Your task to perform on an android device: Do I have any events tomorrow? Image 0: 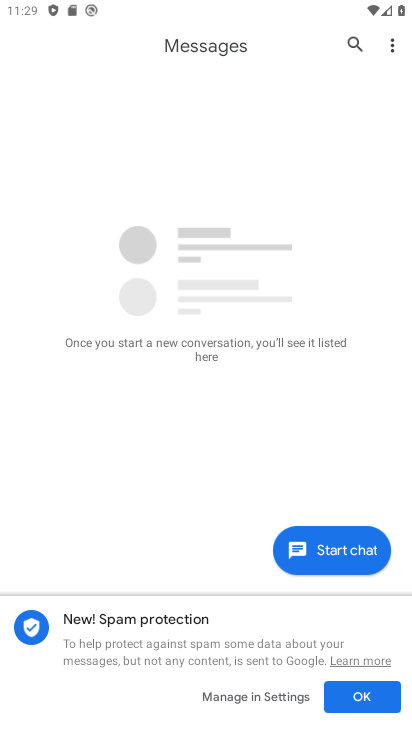
Step 0: press home button
Your task to perform on an android device: Do I have any events tomorrow? Image 1: 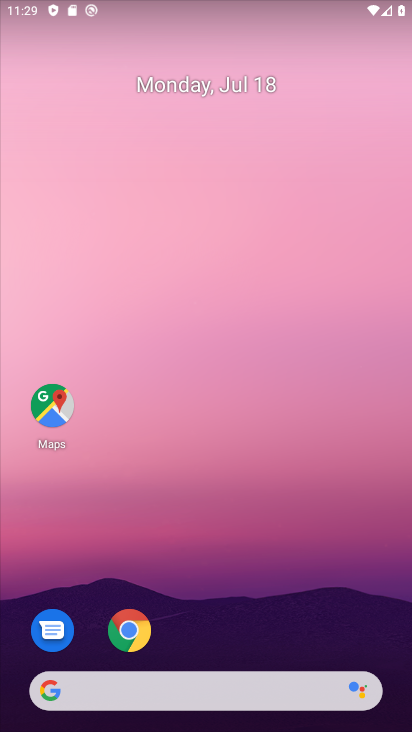
Step 1: drag from (181, 630) to (169, 356)
Your task to perform on an android device: Do I have any events tomorrow? Image 2: 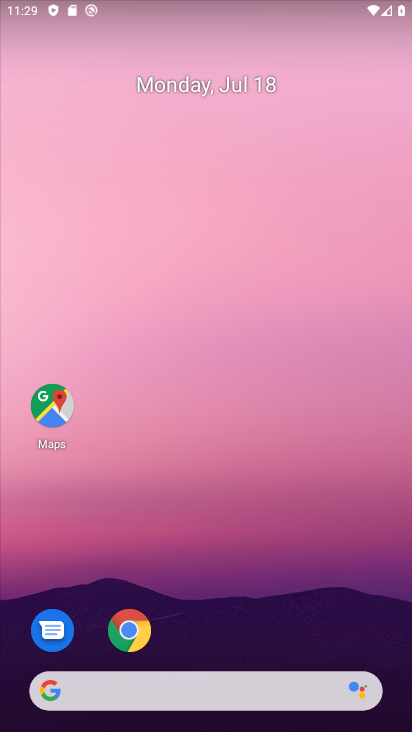
Step 2: click (193, 75)
Your task to perform on an android device: Do I have any events tomorrow? Image 3: 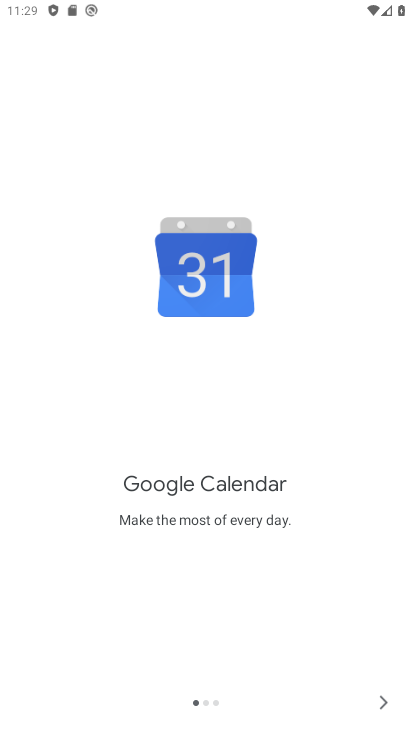
Step 3: click (391, 701)
Your task to perform on an android device: Do I have any events tomorrow? Image 4: 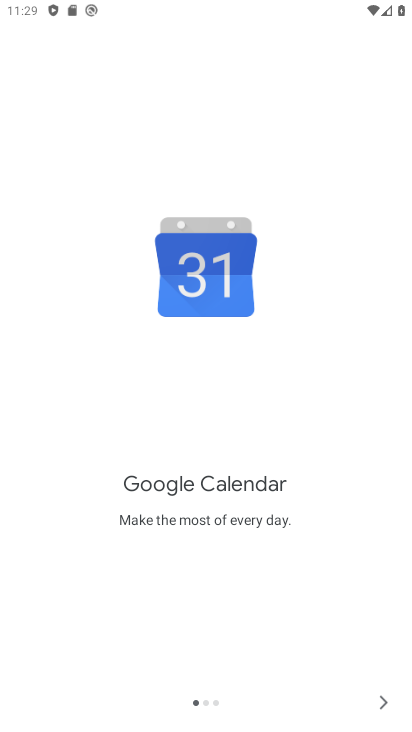
Step 4: click (391, 701)
Your task to perform on an android device: Do I have any events tomorrow? Image 5: 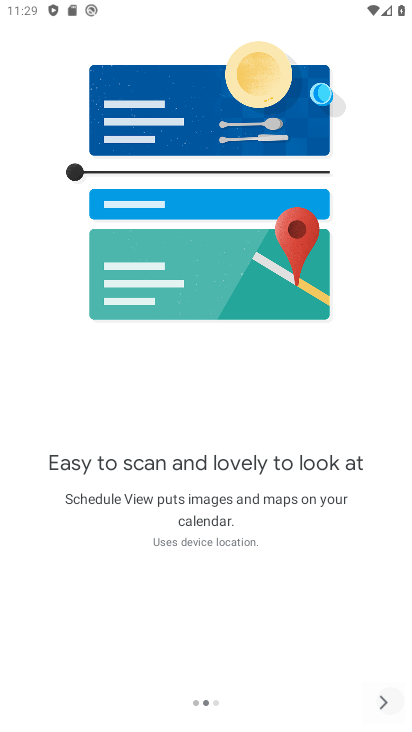
Step 5: click (391, 701)
Your task to perform on an android device: Do I have any events tomorrow? Image 6: 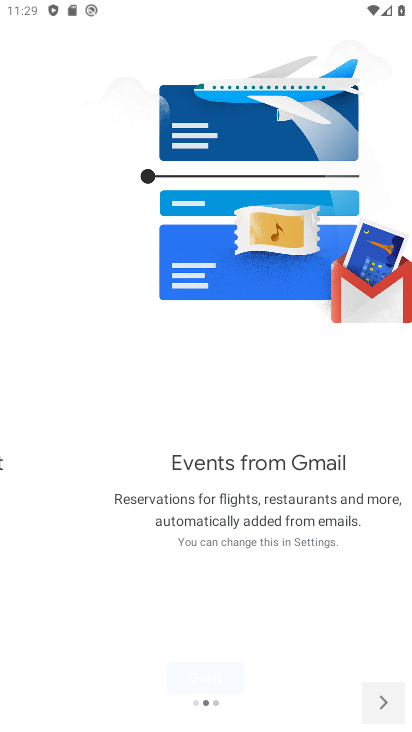
Step 6: click (391, 701)
Your task to perform on an android device: Do I have any events tomorrow? Image 7: 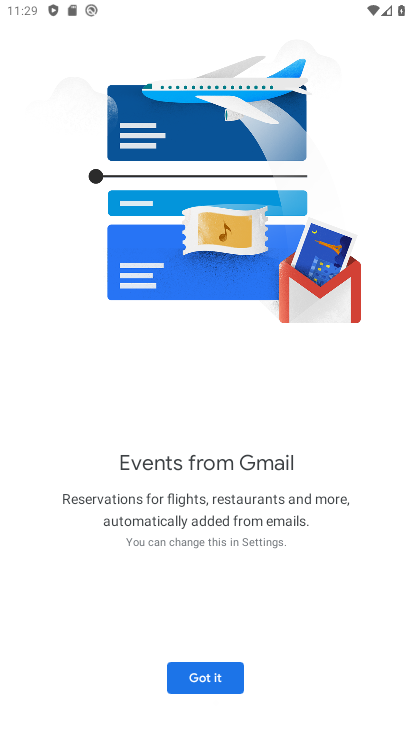
Step 7: click (391, 701)
Your task to perform on an android device: Do I have any events tomorrow? Image 8: 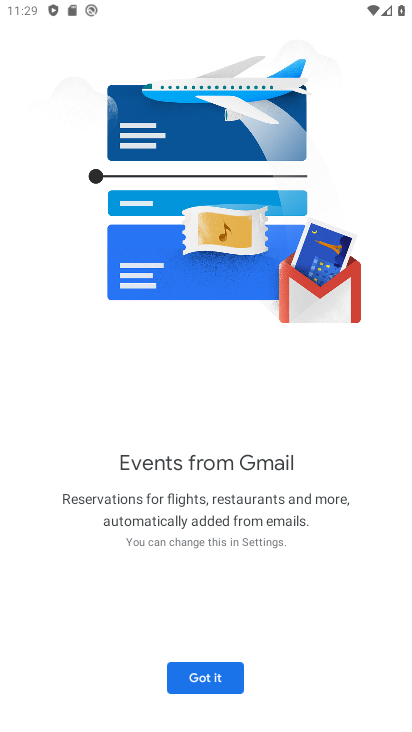
Step 8: click (391, 701)
Your task to perform on an android device: Do I have any events tomorrow? Image 9: 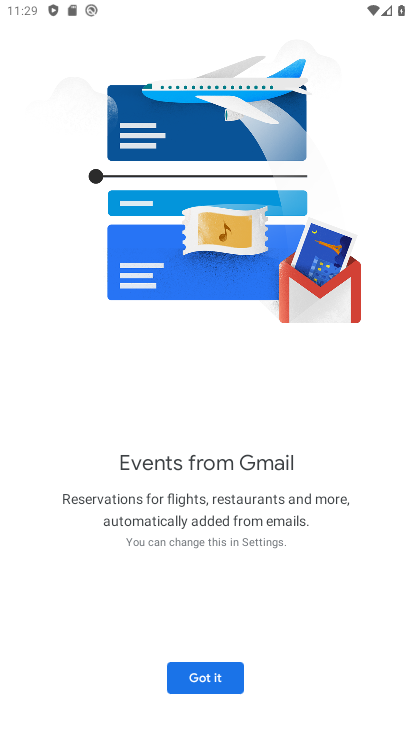
Step 9: click (391, 701)
Your task to perform on an android device: Do I have any events tomorrow? Image 10: 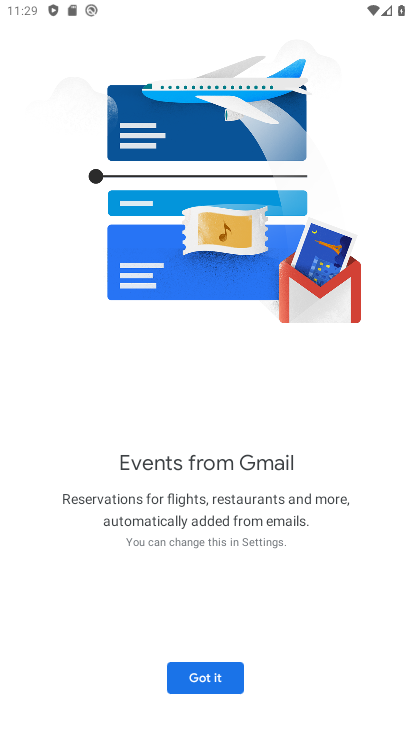
Step 10: click (391, 701)
Your task to perform on an android device: Do I have any events tomorrow? Image 11: 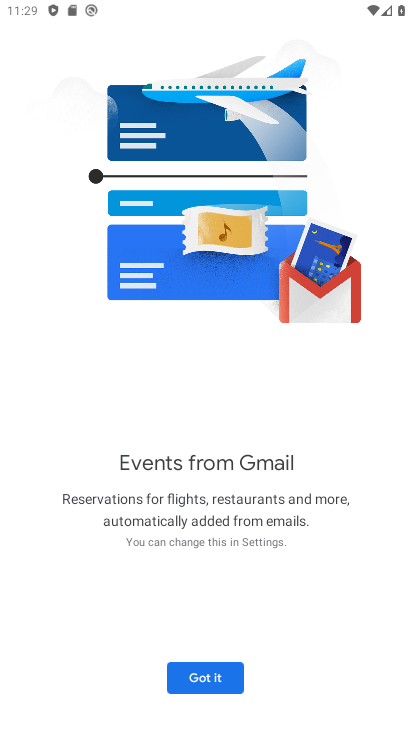
Step 11: click (391, 701)
Your task to perform on an android device: Do I have any events tomorrow? Image 12: 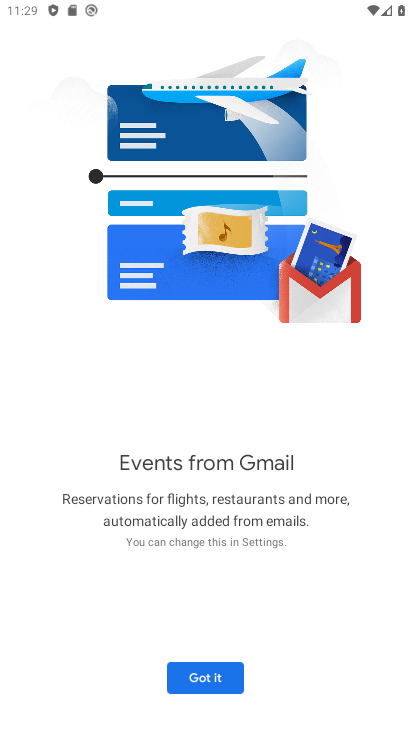
Step 12: click (229, 677)
Your task to perform on an android device: Do I have any events tomorrow? Image 13: 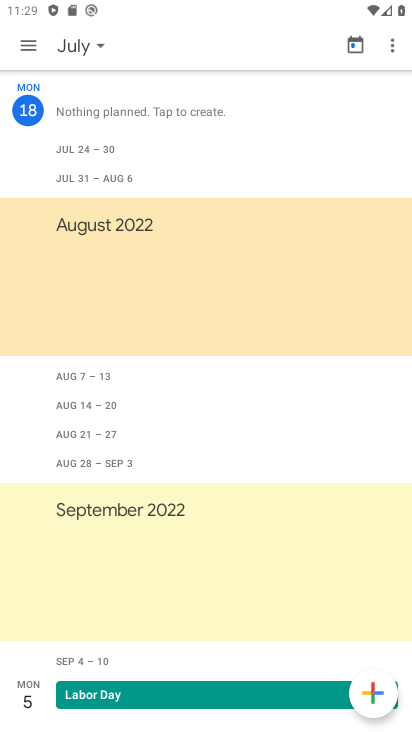
Step 13: click (27, 37)
Your task to perform on an android device: Do I have any events tomorrow? Image 14: 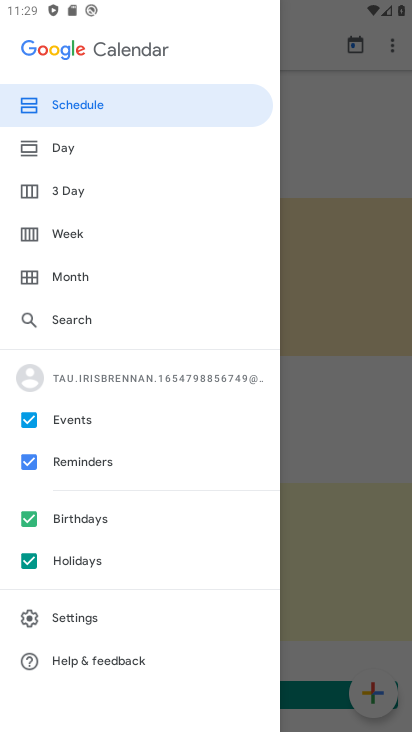
Step 14: click (31, 463)
Your task to perform on an android device: Do I have any events tomorrow? Image 15: 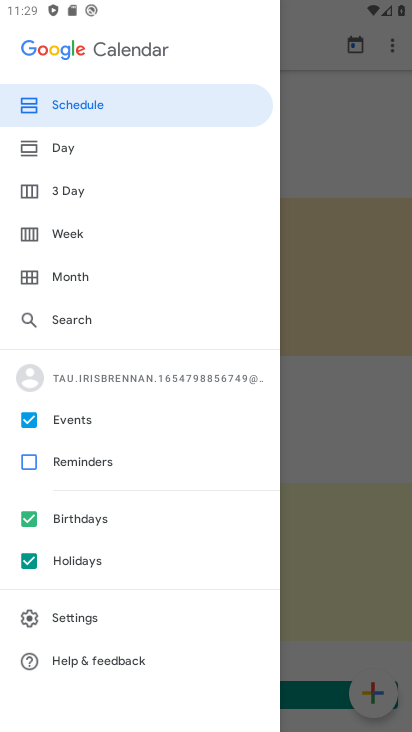
Step 15: click (22, 518)
Your task to perform on an android device: Do I have any events tomorrow? Image 16: 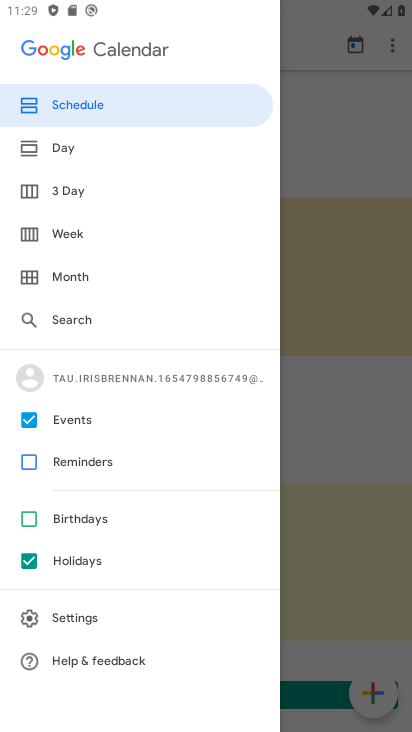
Step 16: click (24, 559)
Your task to perform on an android device: Do I have any events tomorrow? Image 17: 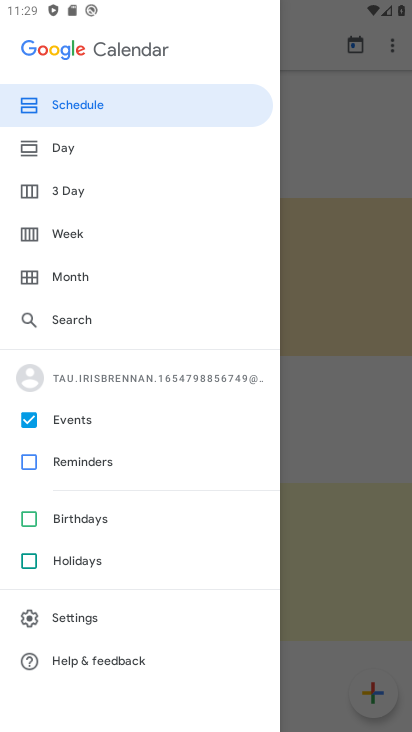
Step 17: click (48, 147)
Your task to perform on an android device: Do I have any events tomorrow? Image 18: 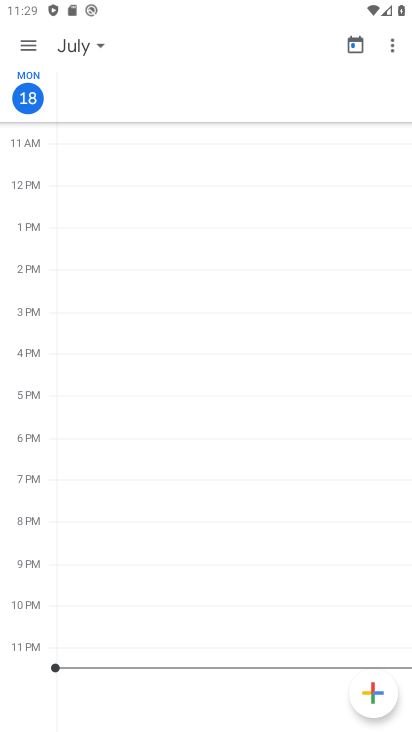
Step 18: click (90, 40)
Your task to perform on an android device: Do I have any events tomorrow? Image 19: 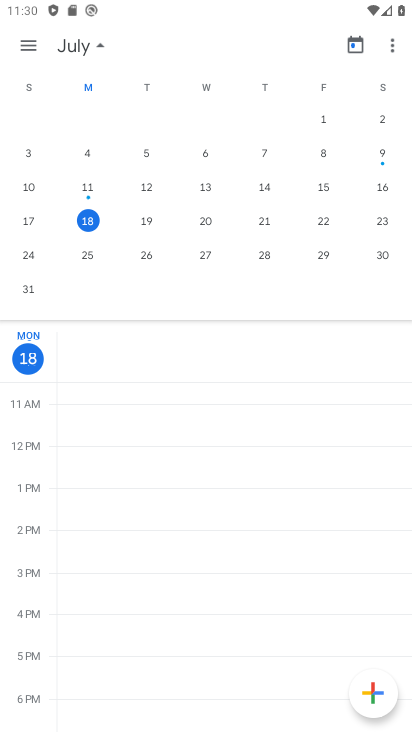
Step 19: click (146, 227)
Your task to perform on an android device: Do I have any events tomorrow? Image 20: 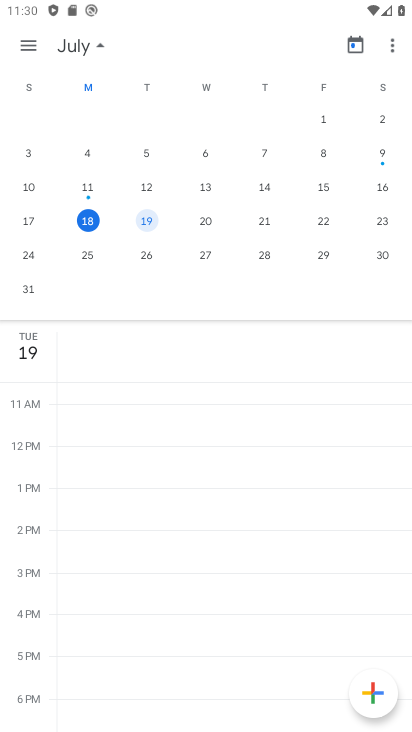
Step 20: task complete